Your task to perform on an android device: change alarm snooze length Image 0: 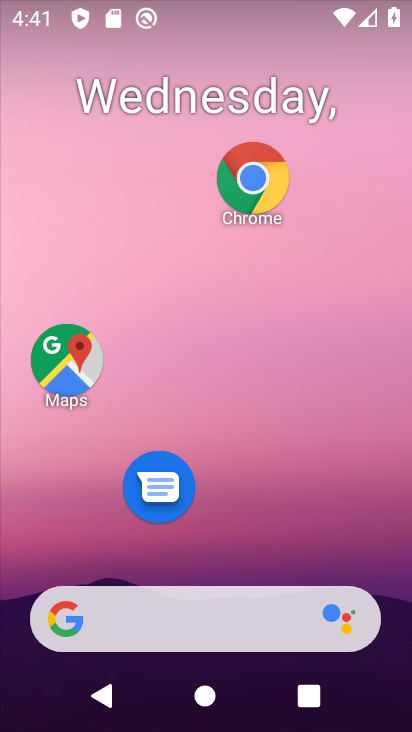
Step 0: drag from (289, 545) to (236, 153)
Your task to perform on an android device: change alarm snooze length Image 1: 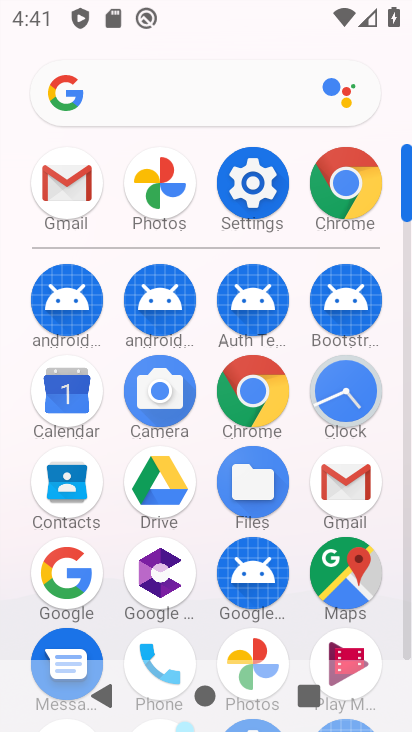
Step 1: click (349, 378)
Your task to perform on an android device: change alarm snooze length Image 2: 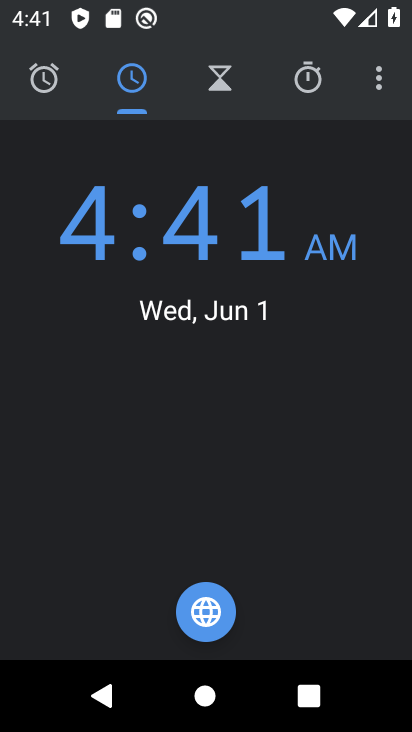
Step 2: click (378, 80)
Your task to perform on an android device: change alarm snooze length Image 3: 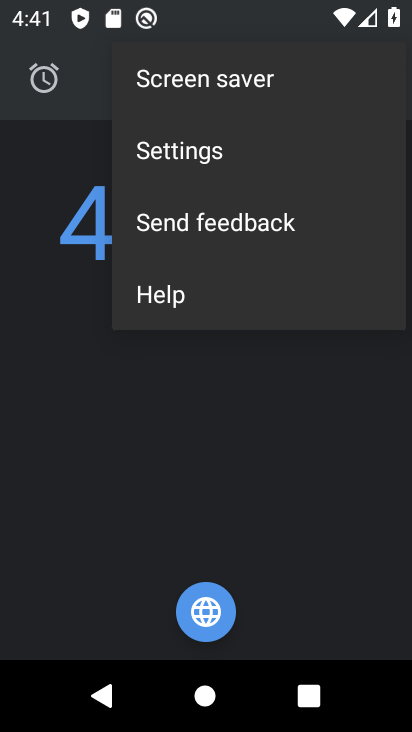
Step 3: click (184, 170)
Your task to perform on an android device: change alarm snooze length Image 4: 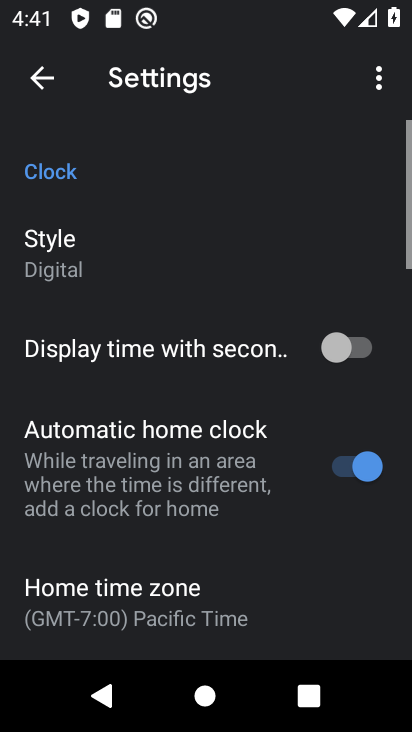
Step 4: drag from (181, 530) to (191, 168)
Your task to perform on an android device: change alarm snooze length Image 5: 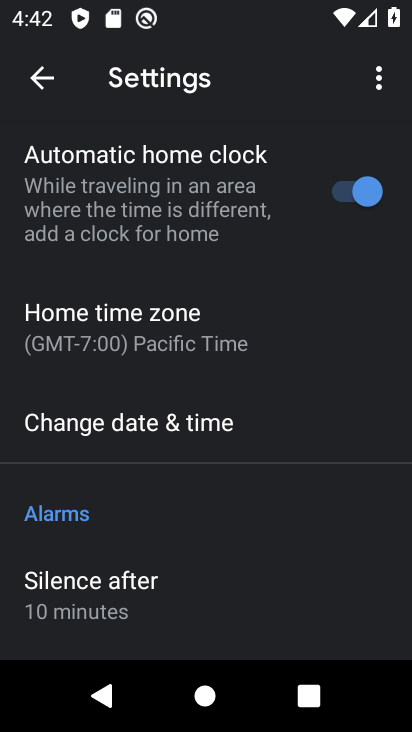
Step 5: drag from (168, 496) to (205, 152)
Your task to perform on an android device: change alarm snooze length Image 6: 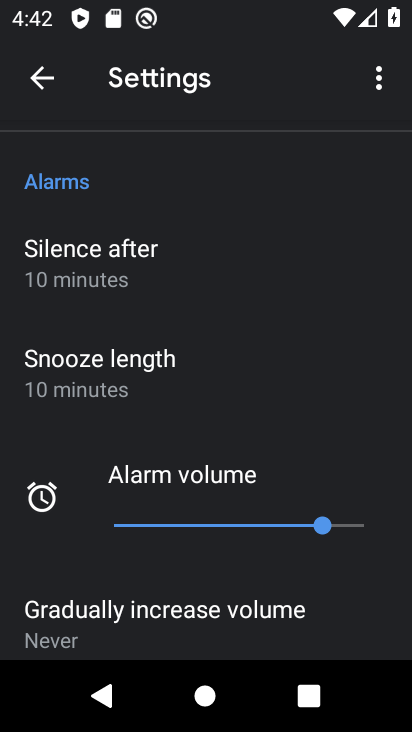
Step 6: click (161, 385)
Your task to perform on an android device: change alarm snooze length Image 7: 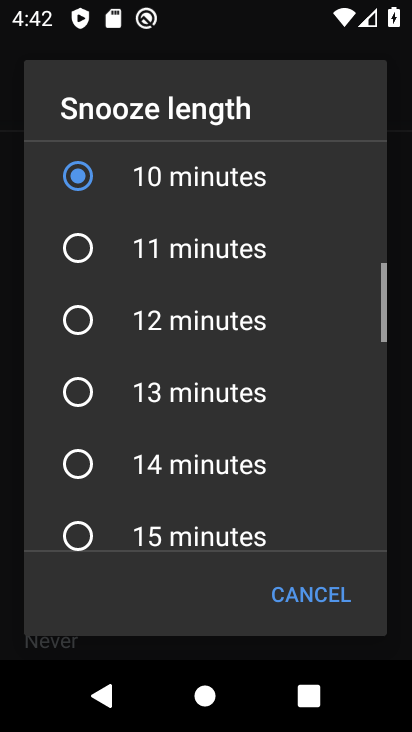
Step 7: click (223, 243)
Your task to perform on an android device: change alarm snooze length Image 8: 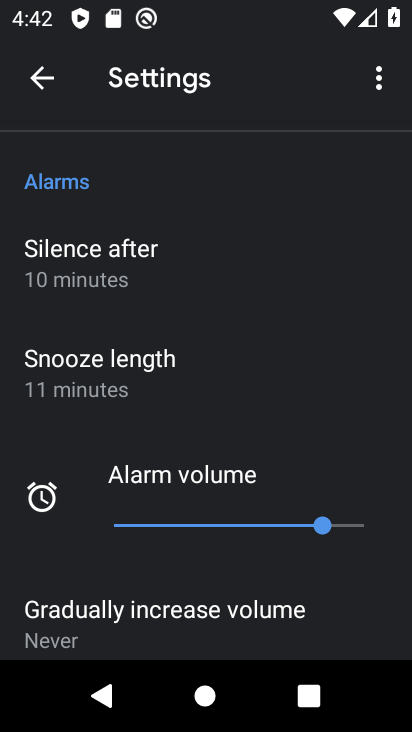
Step 8: task complete